Your task to perform on an android device: turn off notifications settings in the gmail app Image 0: 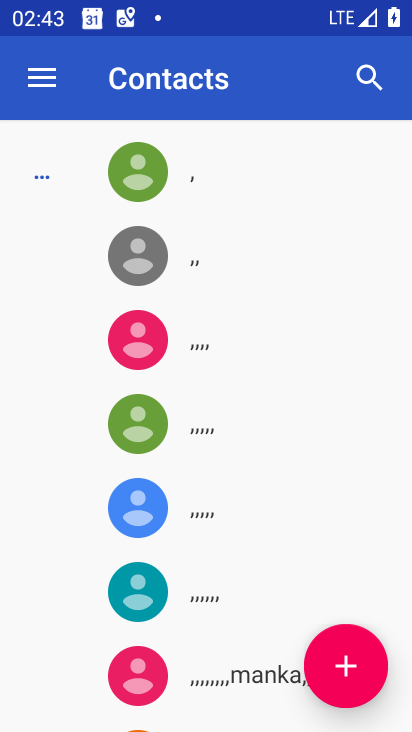
Step 0: press back button
Your task to perform on an android device: turn off notifications settings in the gmail app Image 1: 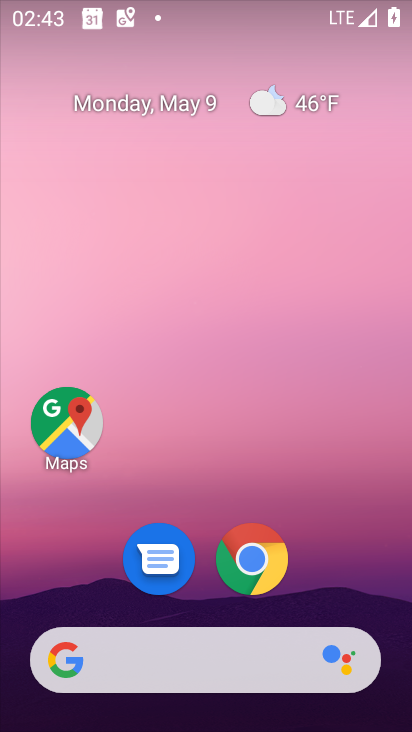
Step 1: drag from (206, 490) to (234, 7)
Your task to perform on an android device: turn off notifications settings in the gmail app Image 2: 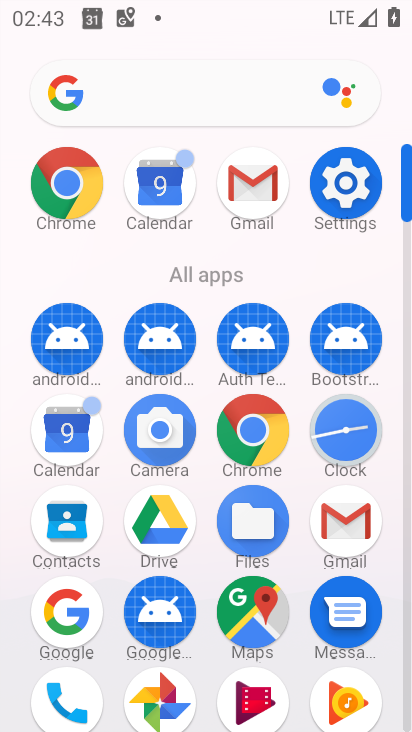
Step 2: click (255, 181)
Your task to perform on an android device: turn off notifications settings in the gmail app Image 3: 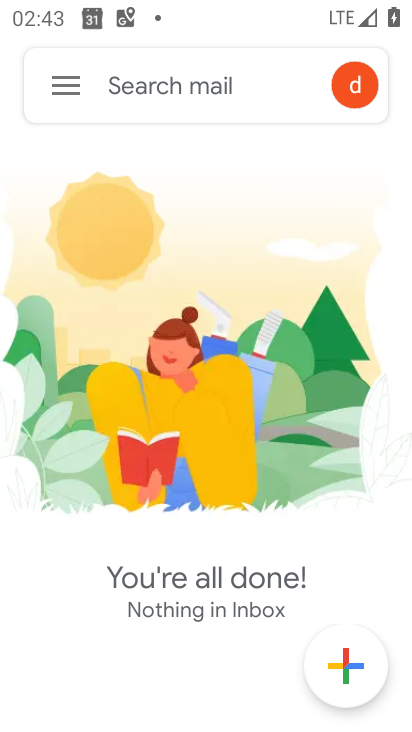
Step 3: click (72, 85)
Your task to perform on an android device: turn off notifications settings in the gmail app Image 4: 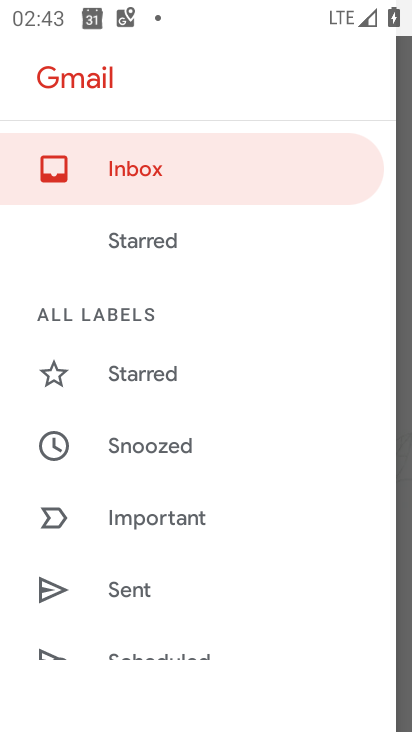
Step 4: drag from (126, 448) to (138, 310)
Your task to perform on an android device: turn off notifications settings in the gmail app Image 5: 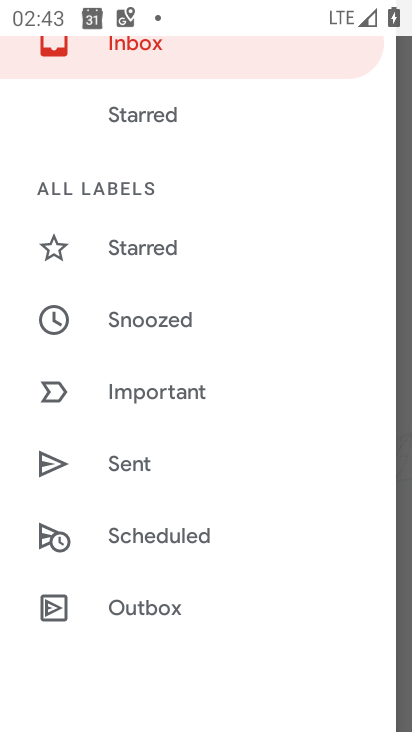
Step 5: drag from (110, 428) to (180, 311)
Your task to perform on an android device: turn off notifications settings in the gmail app Image 6: 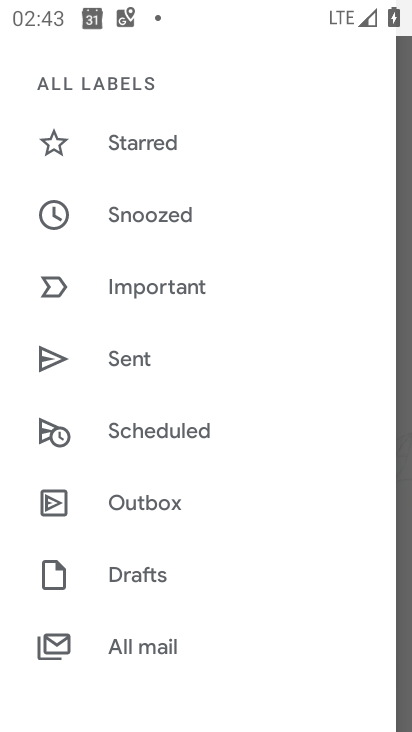
Step 6: drag from (122, 467) to (159, 344)
Your task to perform on an android device: turn off notifications settings in the gmail app Image 7: 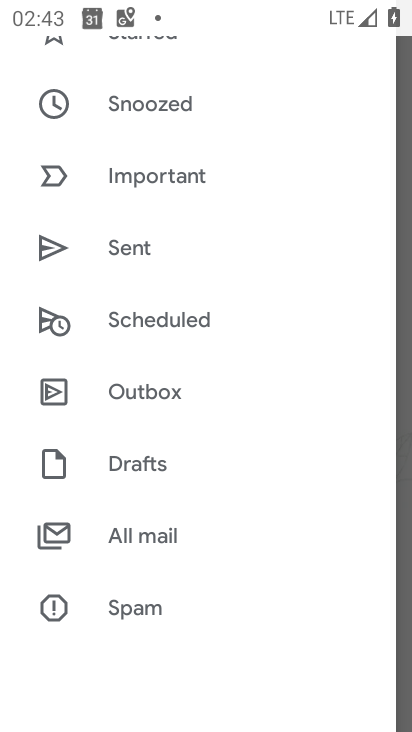
Step 7: drag from (126, 434) to (201, 316)
Your task to perform on an android device: turn off notifications settings in the gmail app Image 8: 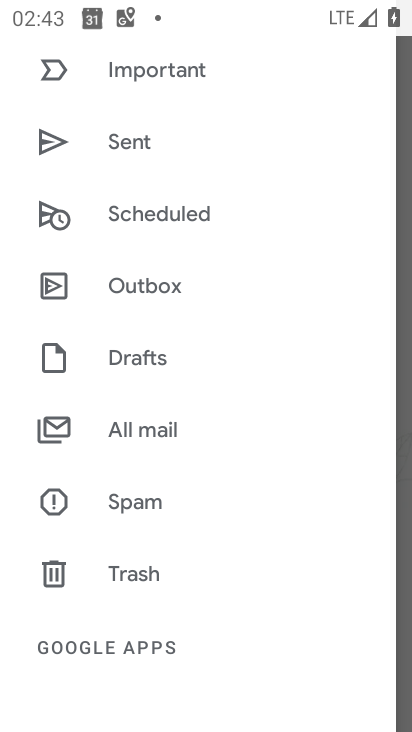
Step 8: drag from (137, 461) to (205, 335)
Your task to perform on an android device: turn off notifications settings in the gmail app Image 9: 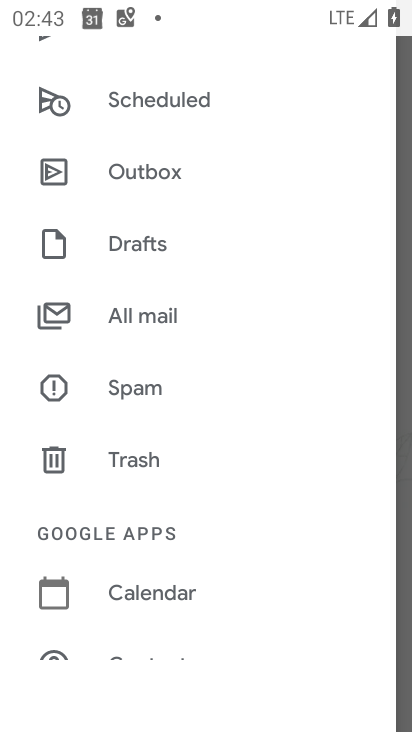
Step 9: drag from (153, 419) to (239, 281)
Your task to perform on an android device: turn off notifications settings in the gmail app Image 10: 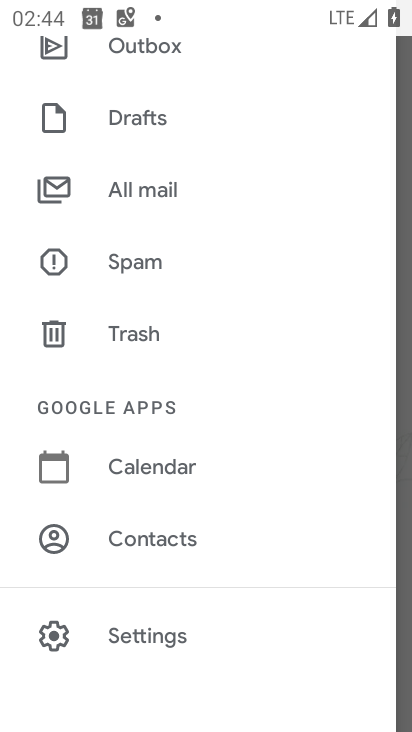
Step 10: click (134, 634)
Your task to perform on an android device: turn off notifications settings in the gmail app Image 11: 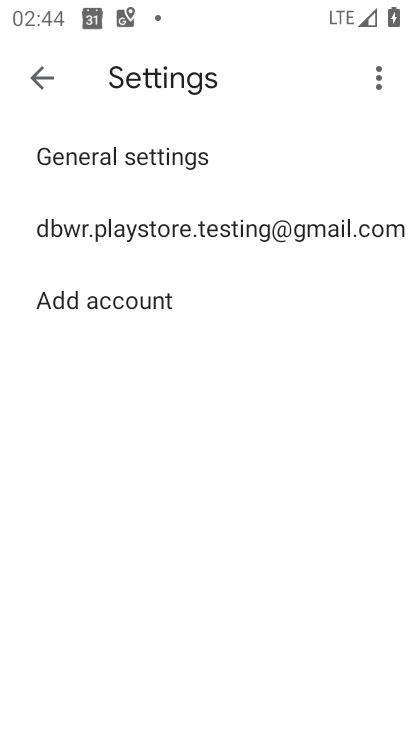
Step 11: click (139, 239)
Your task to perform on an android device: turn off notifications settings in the gmail app Image 12: 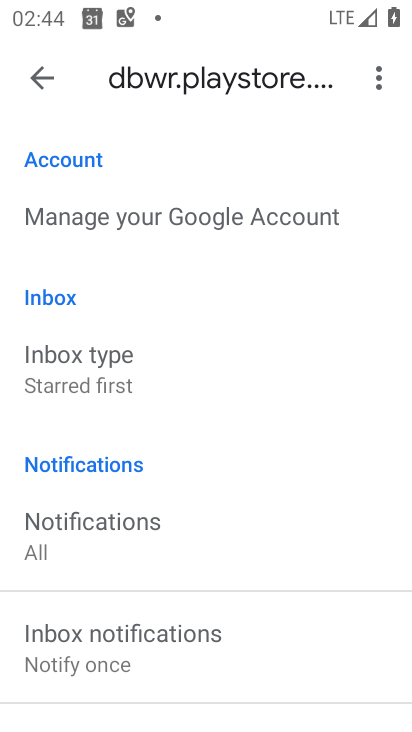
Step 12: drag from (131, 522) to (169, 397)
Your task to perform on an android device: turn off notifications settings in the gmail app Image 13: 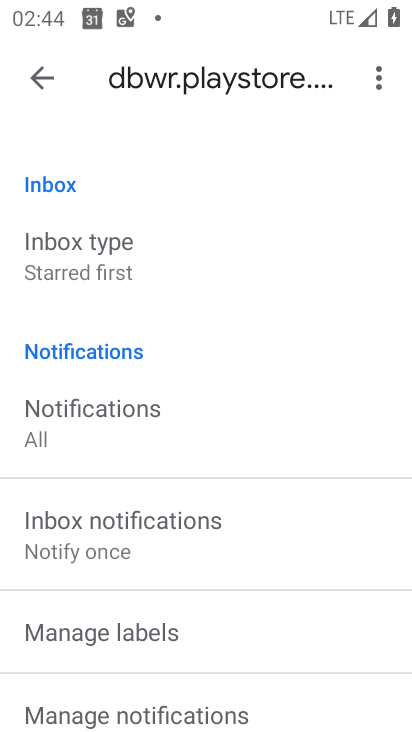
Step 13: drag from (109, 625) to (195, 459)
Your task to perform on an android device: turn off notifications settings in the gmail app Image 14: 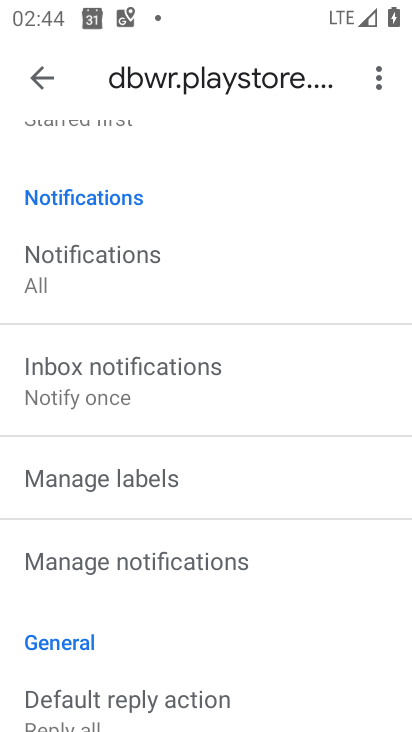
Step 14: click (133, 557)
Your task to perform on an android device: turn off notifications settings in the gmail app Image 15: 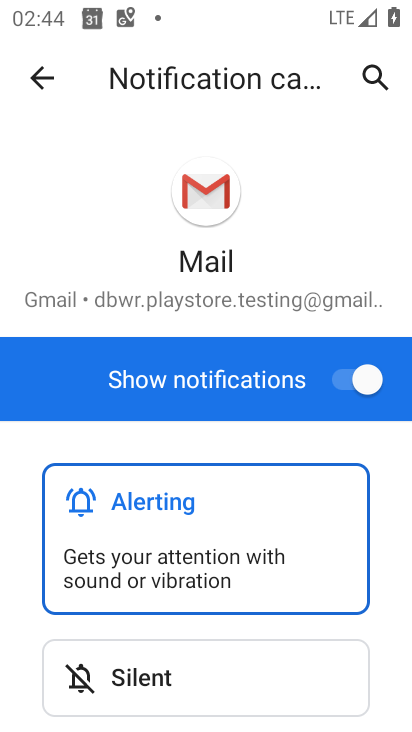
Step 15: click (356, 383)
Your task to perform on an android device: turn off notifications settings in the gmail app Image 16: 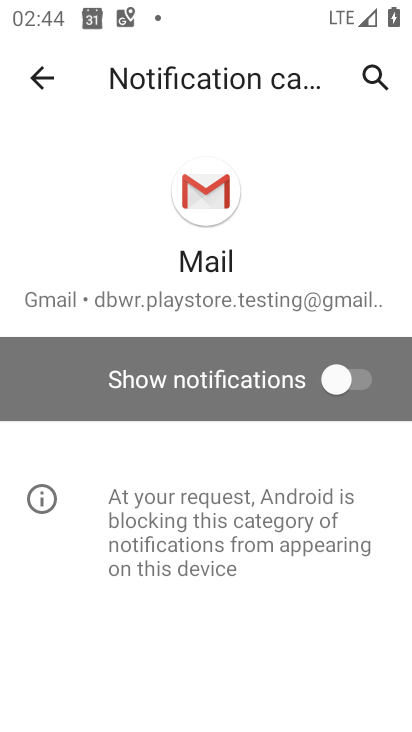
Step 16: task complete